Your task to perform on an android device: Search for sushi restaurants on Maps Image 0: 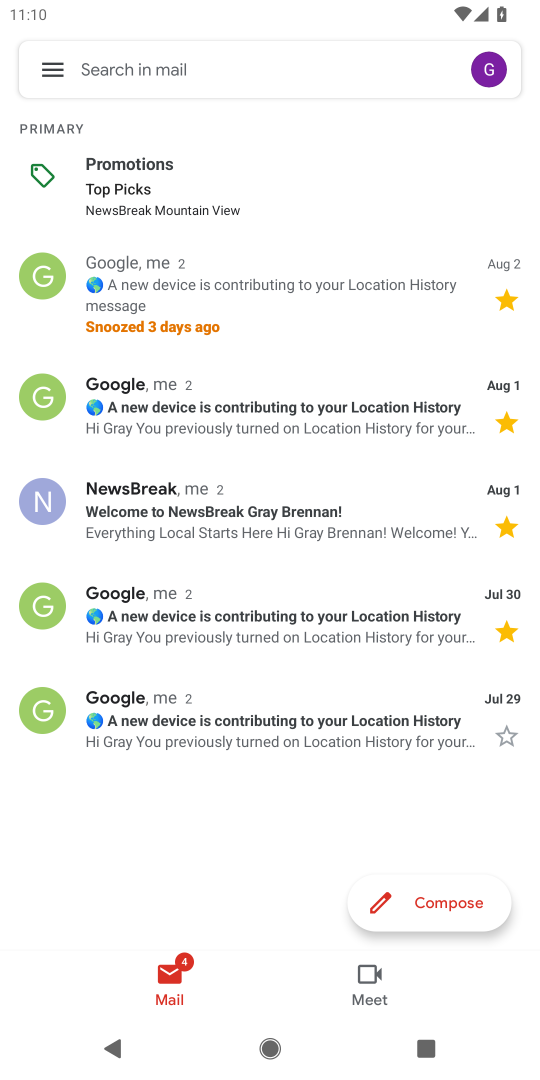
Step 0: press home button
Your task to perform on an android device: Search for sushi restaurants on Maps Image 1: 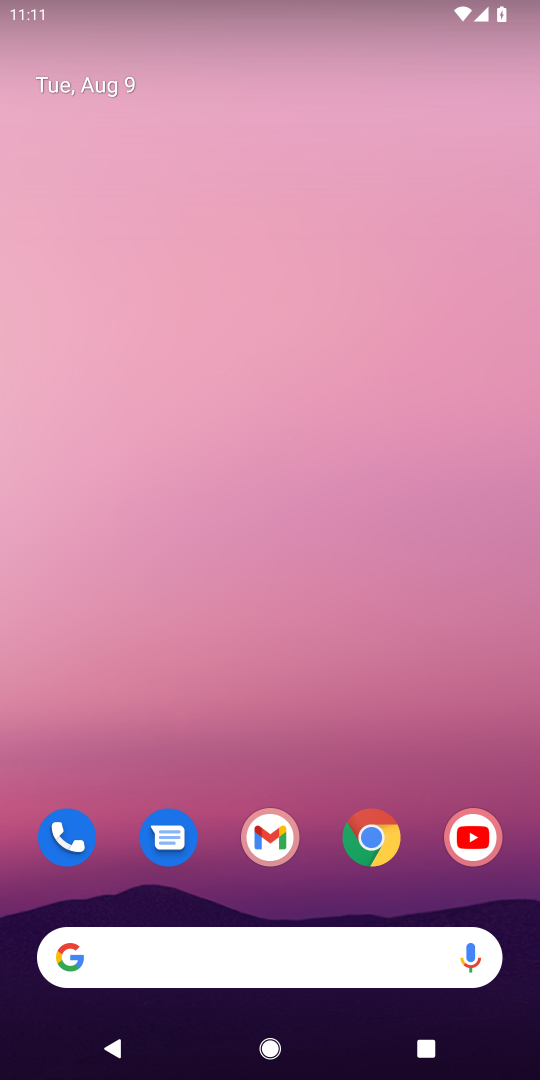
Step 1: drag from (302, 821) to (305, 46)
Your task to perform on an android device: Search for sushi restaurants on Maps Image 2: 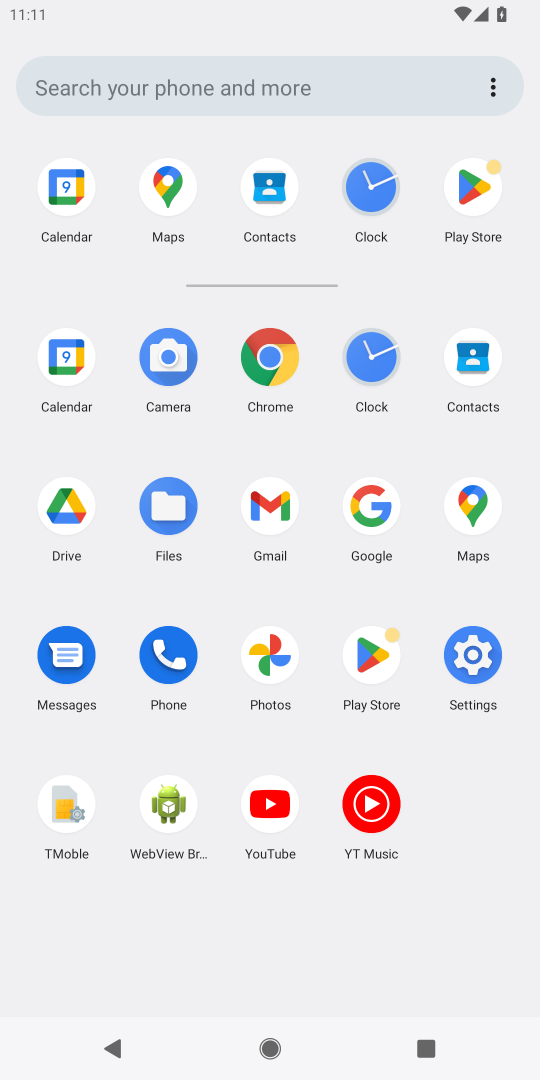
Step 2: click (468, 506)
Your task to perform on an android device: Search for sushi restaurants on Maps Image 3: 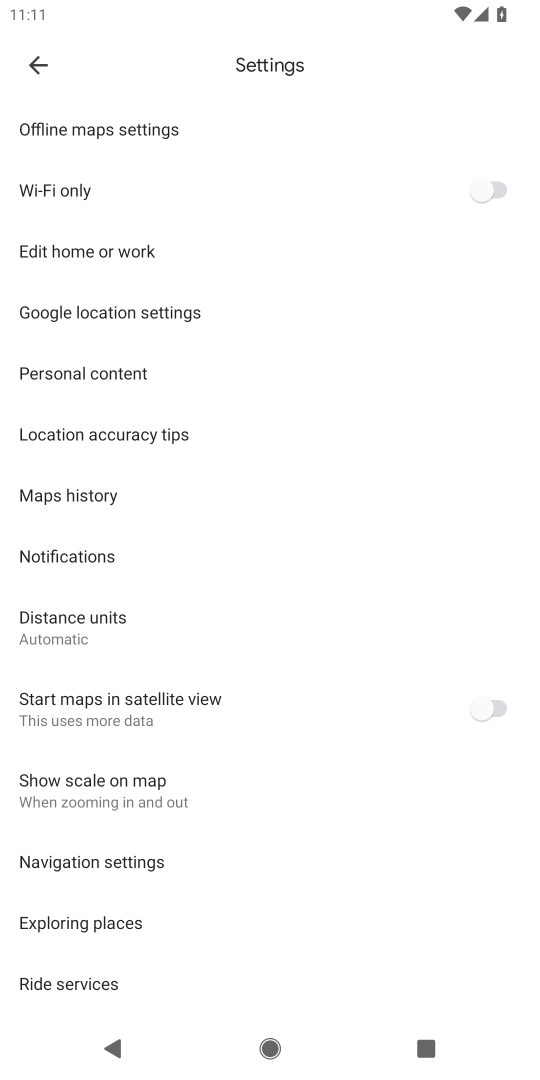
Step 3: click (40, 58)
Your task to perform on an android device: Search for sushi restaurants on Maps Image 4: 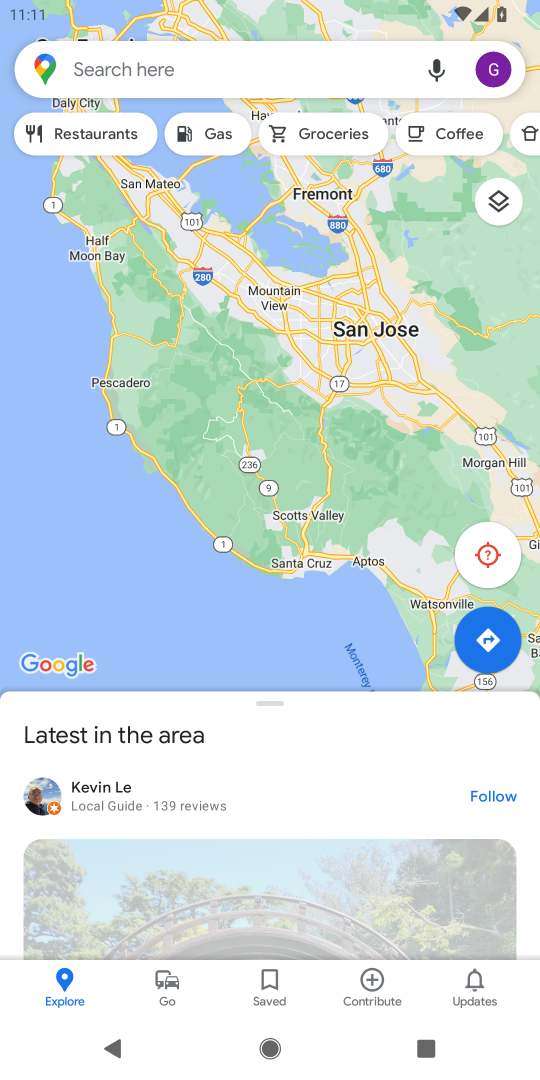
Step 4: click (120, 66)
Your task to perform on an android device: Search for sushi restaurants on Maps Image 5: 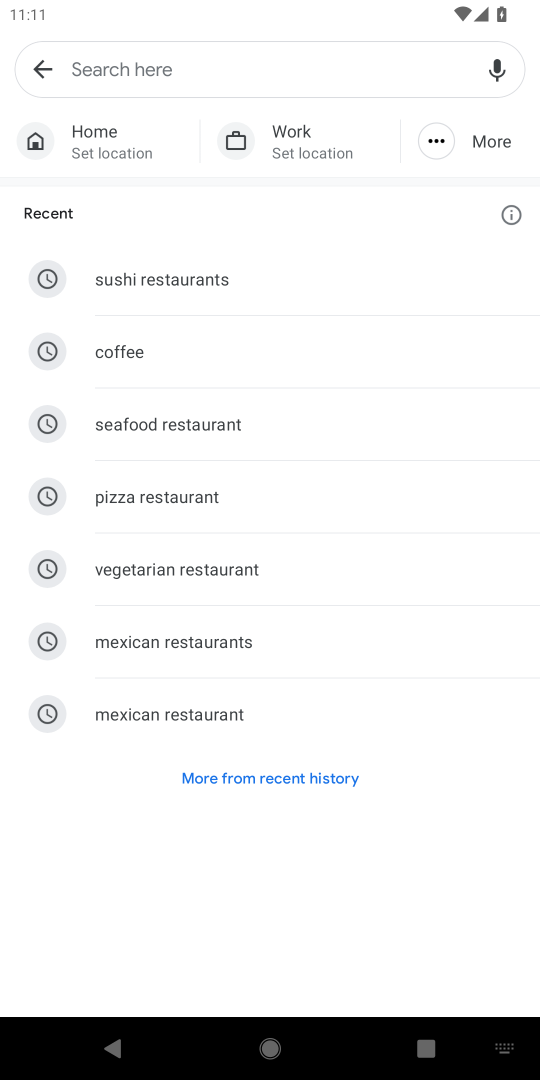
Step 5: type "sushi restaurants"
Your task to perform on an android device: Search for sushi restaurants on Maps Image 6: 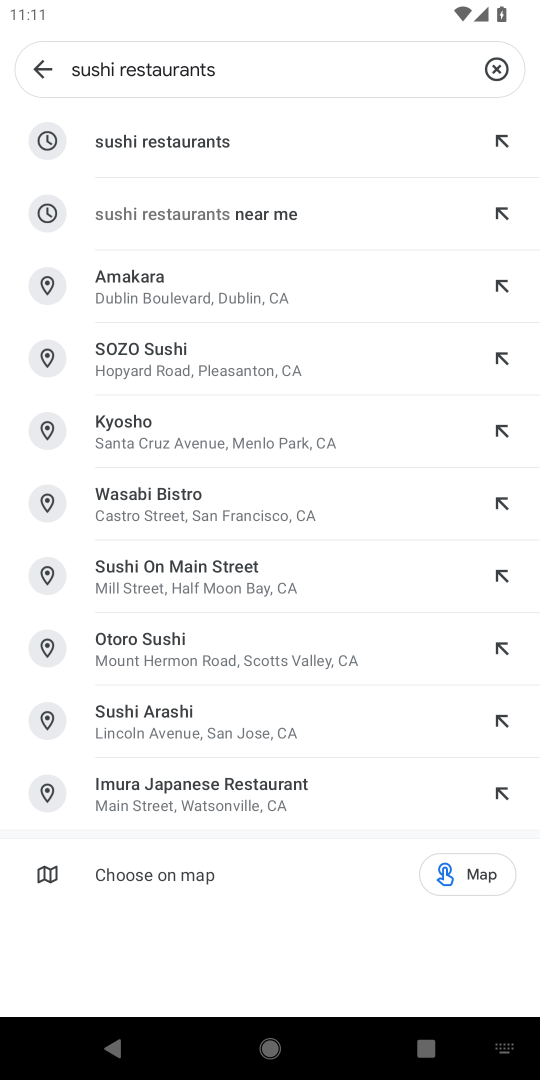
Step 6: click (189, 143)
Your task to perform on an android device: Search for sushi restaurants on Maps Image 7: 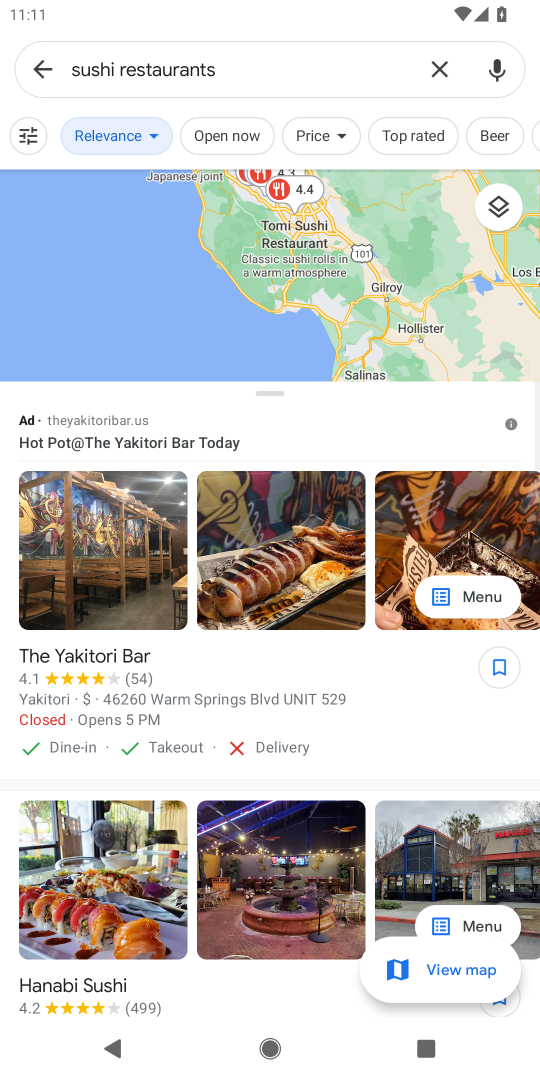
Step 7: task complete